Your task to perform on an android device: Open calendar and show me the first week of next month Image 0: 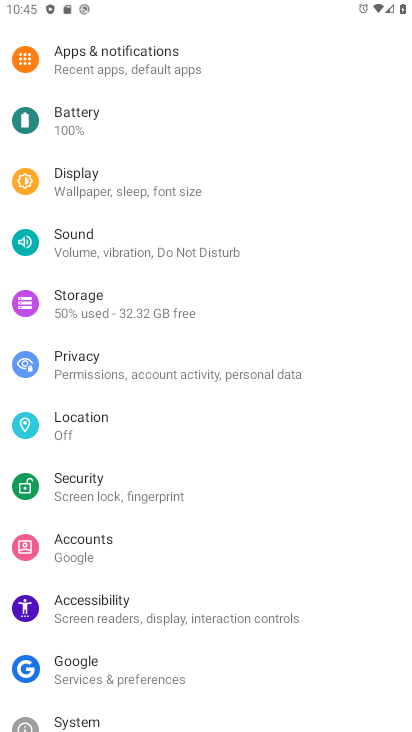
Step 0: press home button
Your task to perform on an android device: Open calendar and show me the first week of next month Image 1: 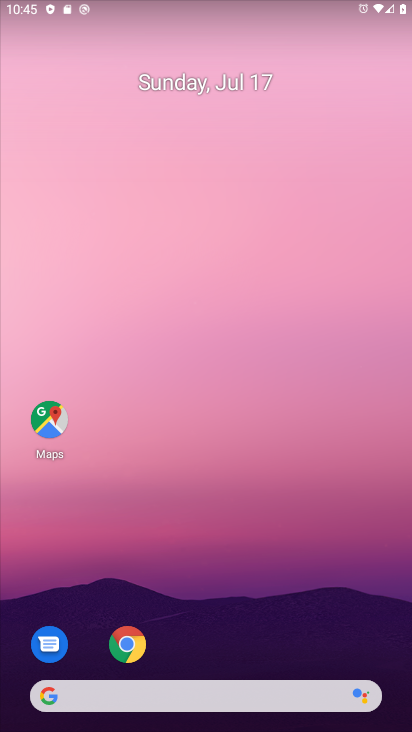
Step 1: drag from (320, 625) to (253, 25)
Your task to perform on an android device: Open calendar and show me the first week of next month Image 2: 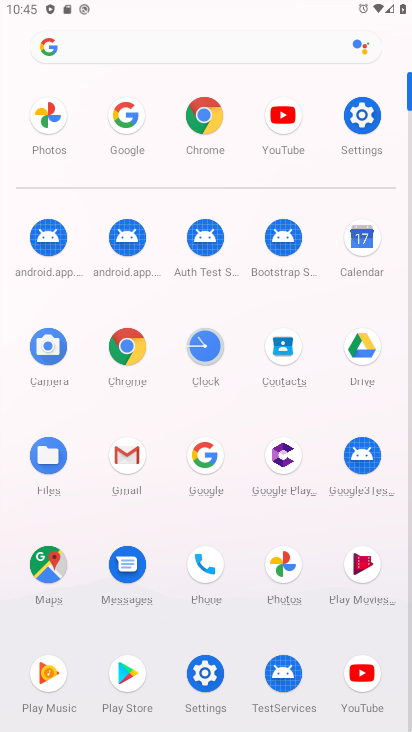
Step 2: click (366, 257)
Your task to perform on an android device: Open calendar and show me the first week of next month Image 3: 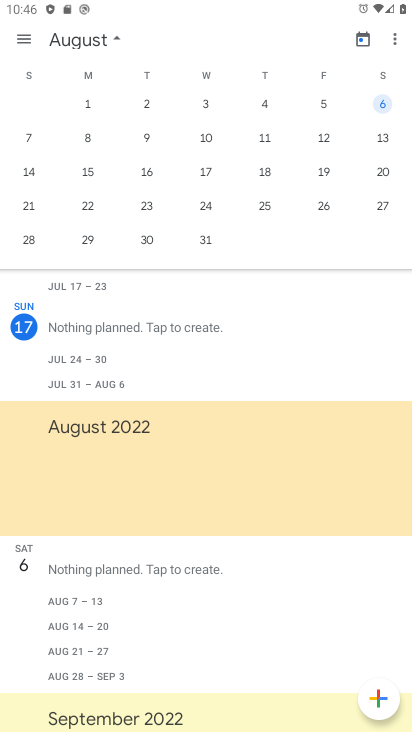
Step 3: drag from (357, 224) to (302, 0)
Your task to perform on an android device: Open calendar and show me the first week of next month Image 4: 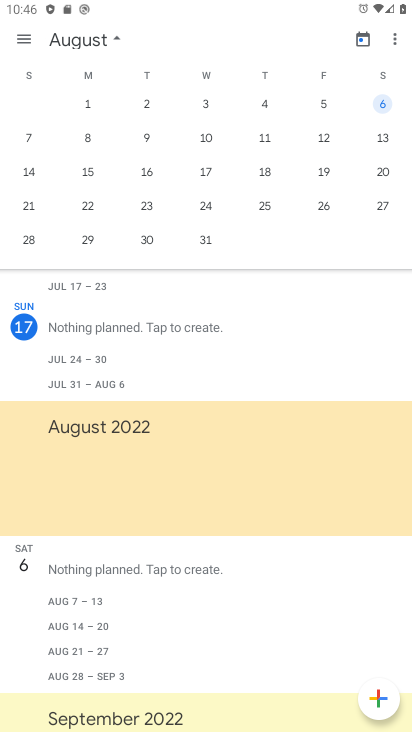
Step 4: click (29, 140)
Your task to perform on an android device: Open calendar and show me the first week of next month Image 5: 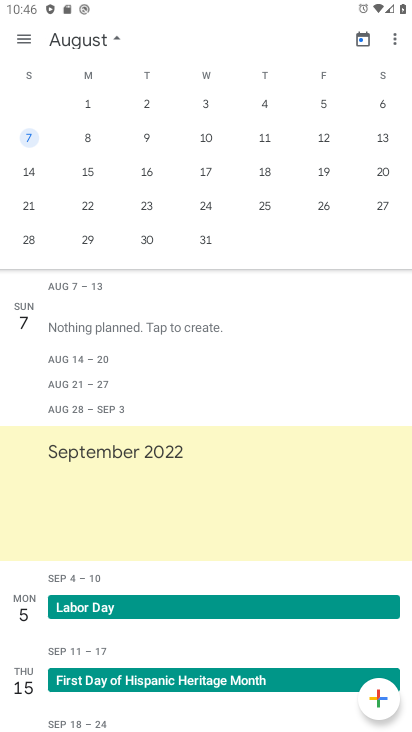
Step 5: task complete